Your task to perform on an android device: Go to privacy settings Image 0: 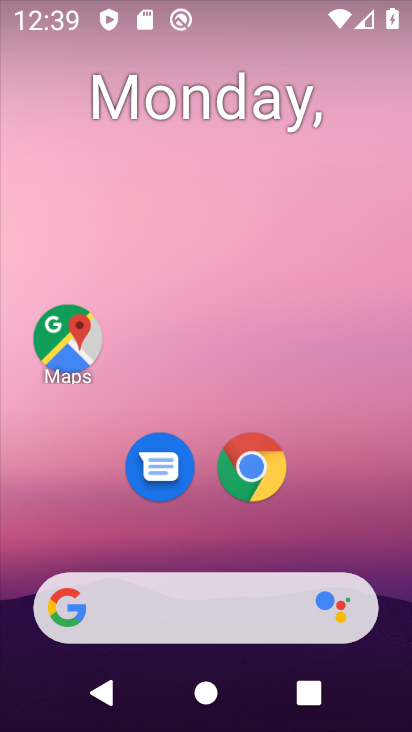
Step 0: click (298, 52)
Your task to perform on an android device: Go to privacy settings Image 1: 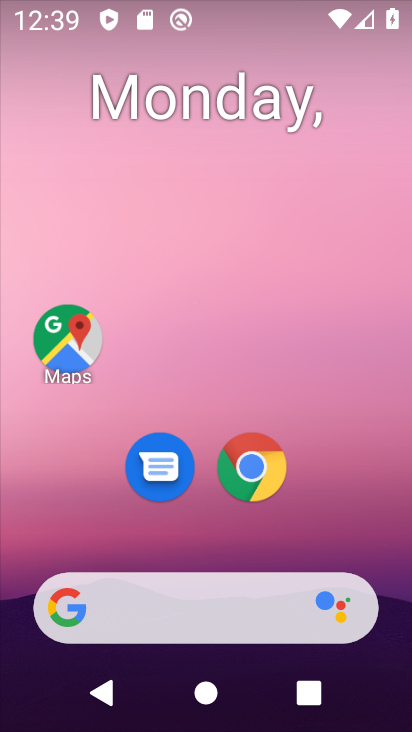
Step 1: click (264, 455)
Your task to perform on an android device: Go to privacy settings Image 2: 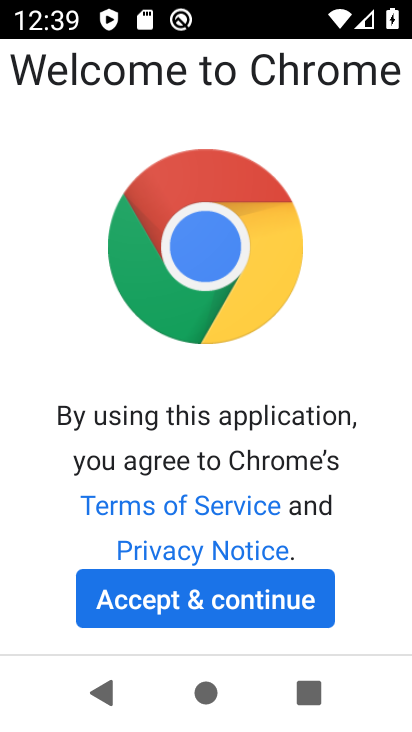
Step 2: click (256, 609)
Your task to perform on an android device: Go to privacy settings Image 3: 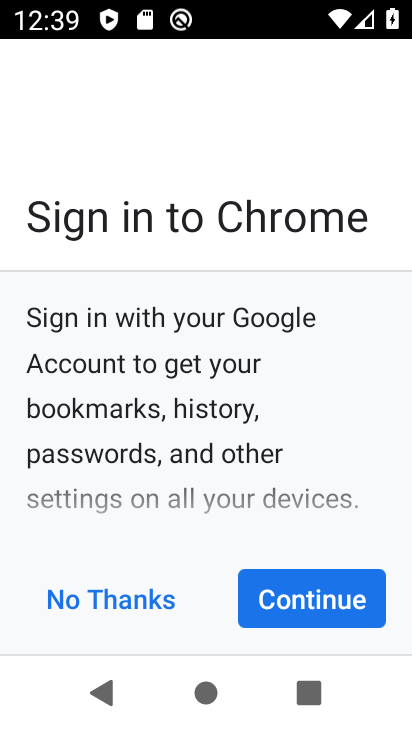
Step 3: click (340, 600)
Your task to perform on an android device: Go to privacy settings Image 4: 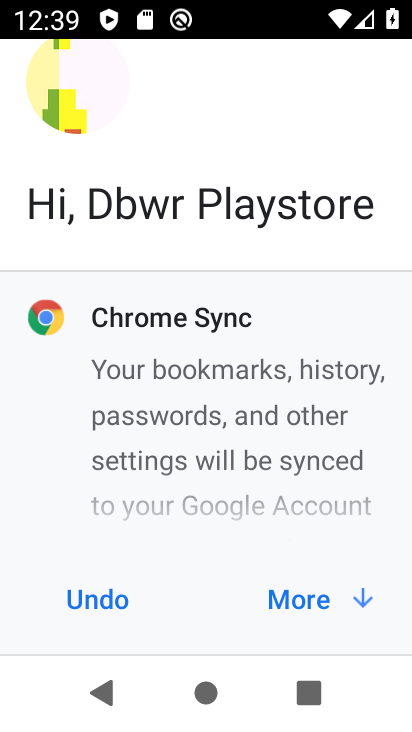
Step 4: click (306, 624)
Your task to perform on an android device: Go to privacy settings Image 5: 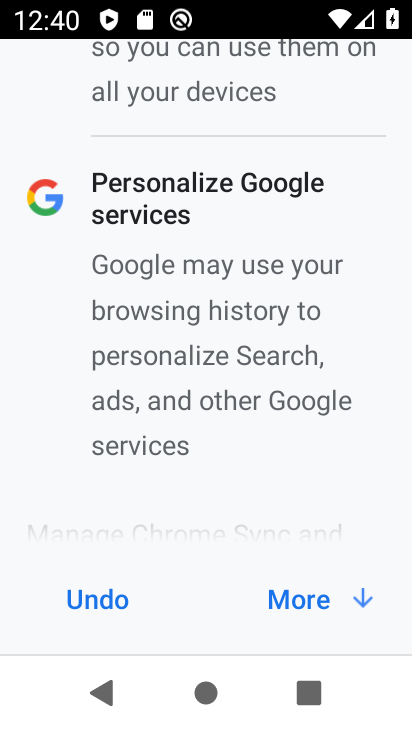
Step 5: click (295, 594)
Your task to perform on an android device: Go to privacy settings Image 6: 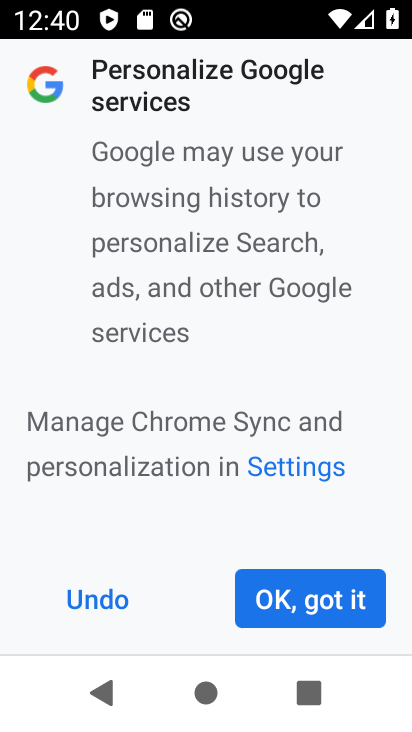
Step 6: click (295, 594)
Your task to perform on an android device: Go to privacy settings Image 7: 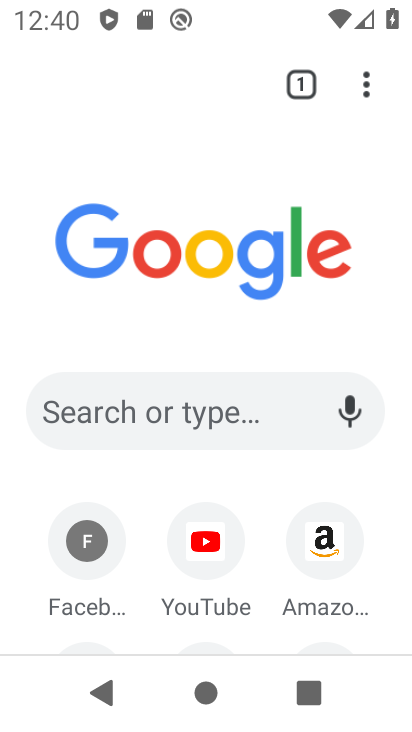
Step 7: click (361, 90)
Your task to perform on an android device: Go to privacy settings Image 8: 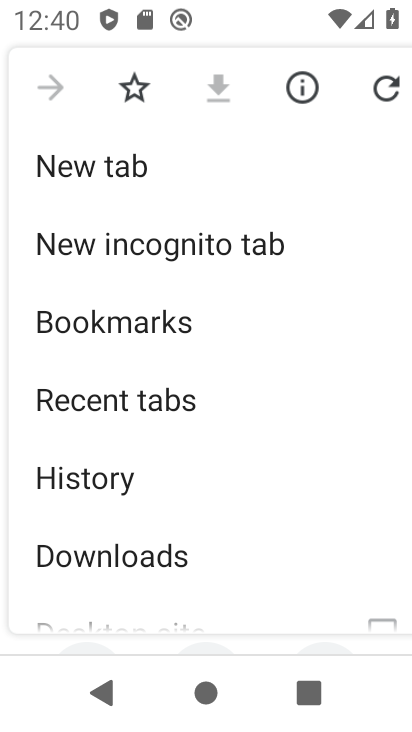
Step 8: drag from (185, 454) to (185, 93)
Your task to perform on an android device: Go to privacy settings Image 9: 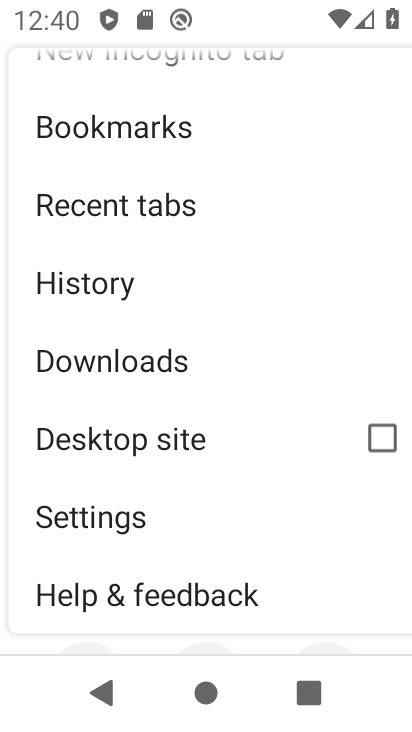
Step 9: click (77, 519)
Your task to perform on an android device: Go to privacy settings Image 10: 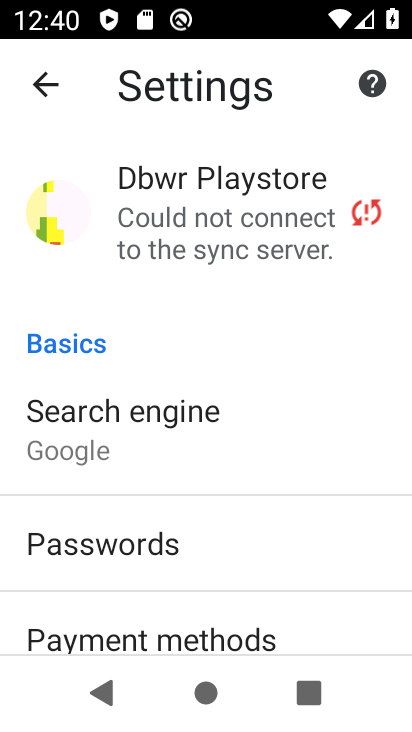
Step 10: drag from (152, 590) to (151, 347)
Your task to perform on an android device: Go to privacy settings Image 11: 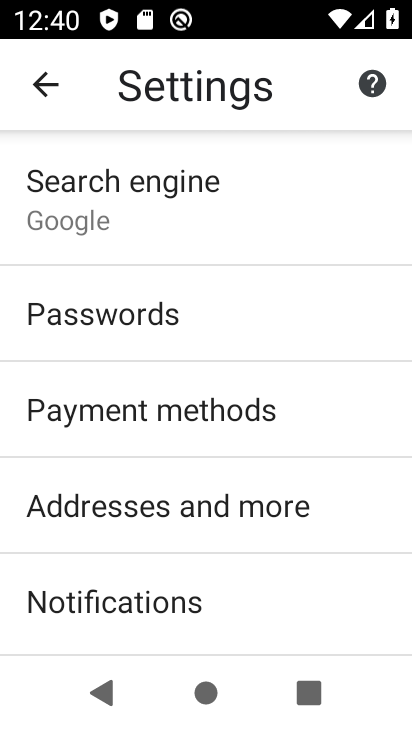
Step 11: drag from (151, 570) to (142, 354)
Your task to perform on an android device: Go to privacy settings Image 12: 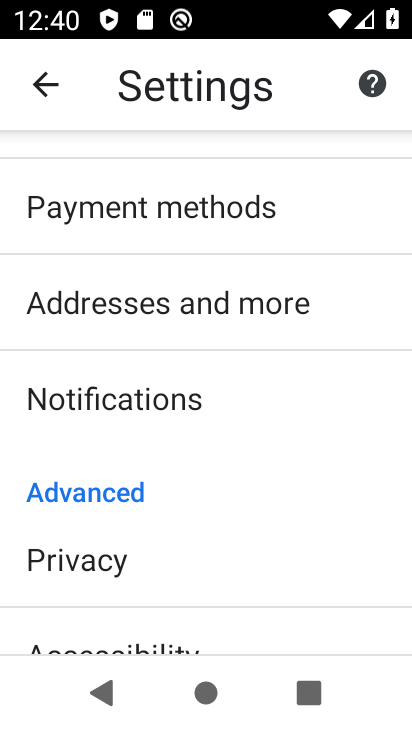
Step 12: click (156, 560)
Your task to perform on an android device: Go to privacy settings Image 13: 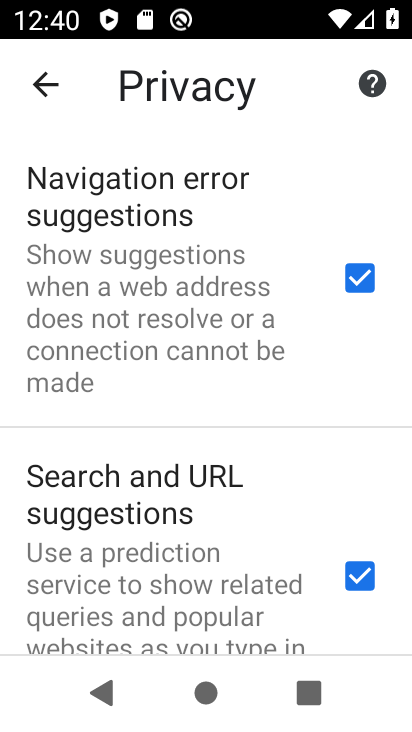
Step 13: task complete